Your task to perform on an android device: Search for Mexican restaurants on Maps Image 0: 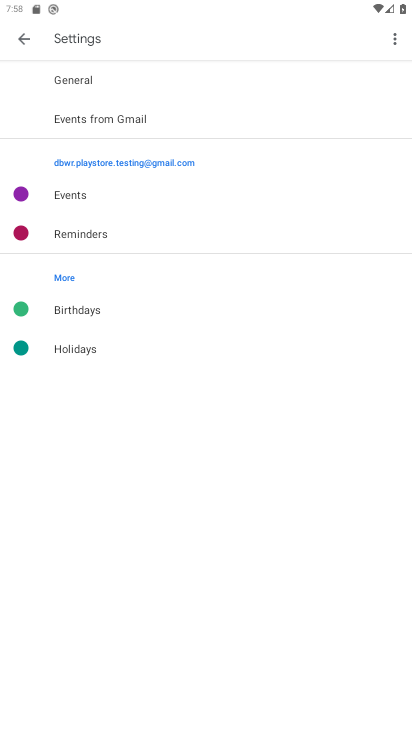
Step 0: press home button
Your task to perform on an android device: Search for Mexican restaurants on Maps Image 1: 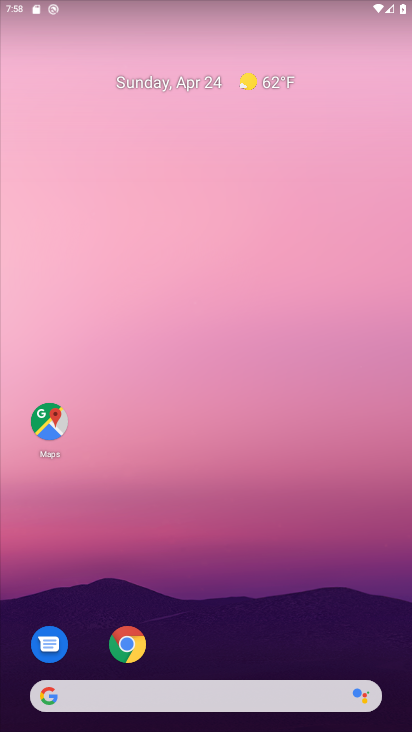
Step 1: drag from (226, 666) to (249, 105)
Your task to perform on an android device: Search for Mexican restaurants on Maps Image 2: 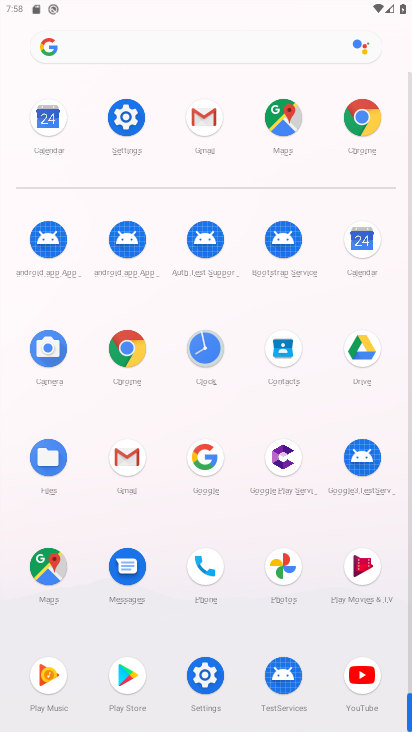
Step 2: click (47, 563)
Your task to perform on an android device: Search for Mexican restaurants on Maps Image 3: 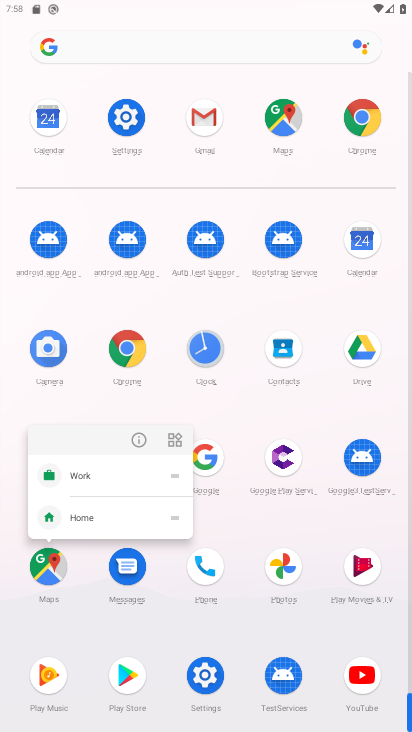
Step 3: click (43, 560)
Your task to perform on an android device: Search for Mexican restaurants on Maps Image 4: 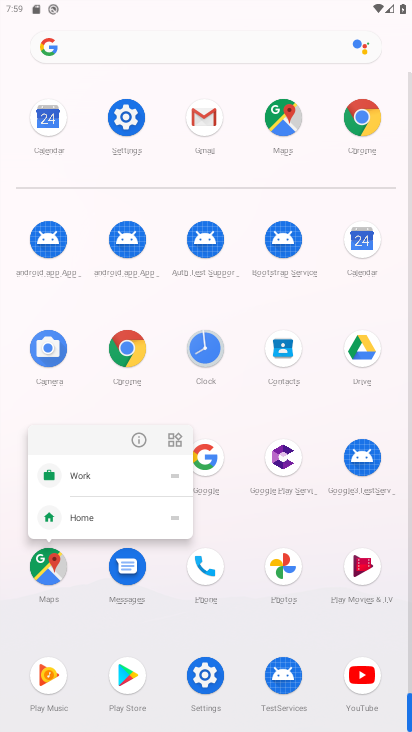
Step 4: click (47, 563)
Your task to perform on an android device: Search for Mexican restaurants on Maps Image 5: 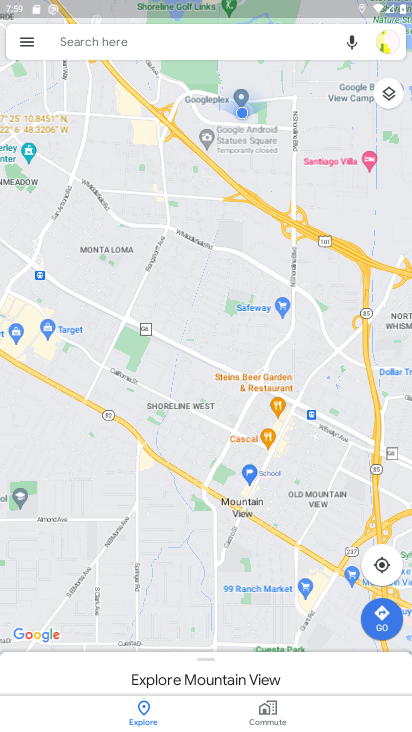
Step 5: click (83, 39)
Your task to perform on an android device: Search for Mexican restaurants on Maps Image 6: 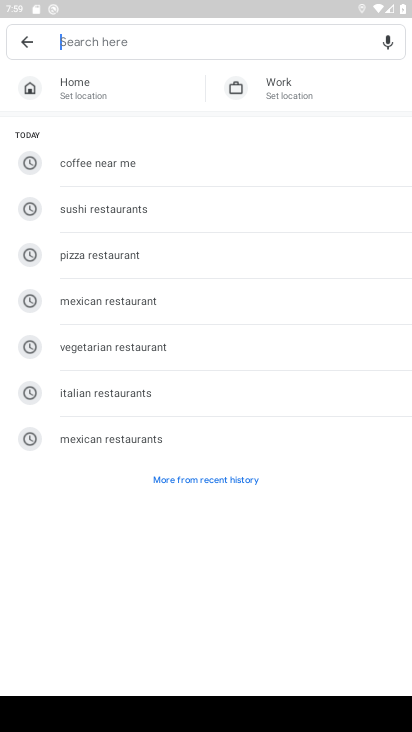
Step 6: click (102, 301)
Your task to perform on an android device: Search for Mexican restaurants on Maps Image 7: 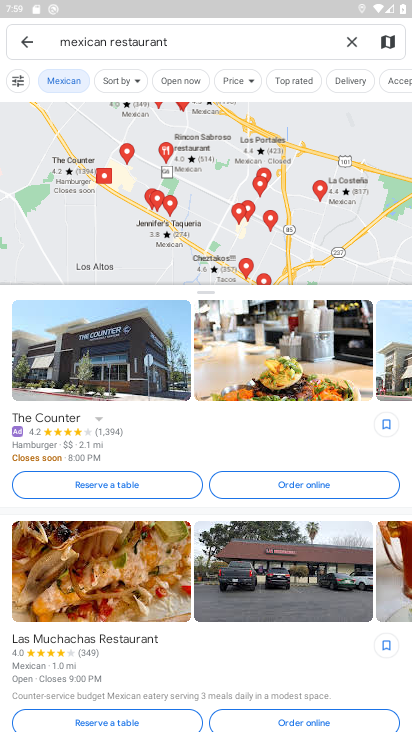
Step 7: task complete